Your task to perform on an android device: search for starred emails in the gmail app Image 0: 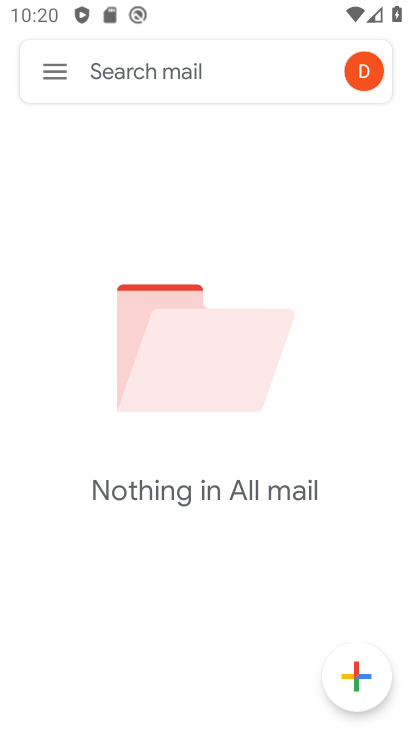
Step 0: press home button
Your task to perform on an android device: search for starred emails in the gmail app Image 1: 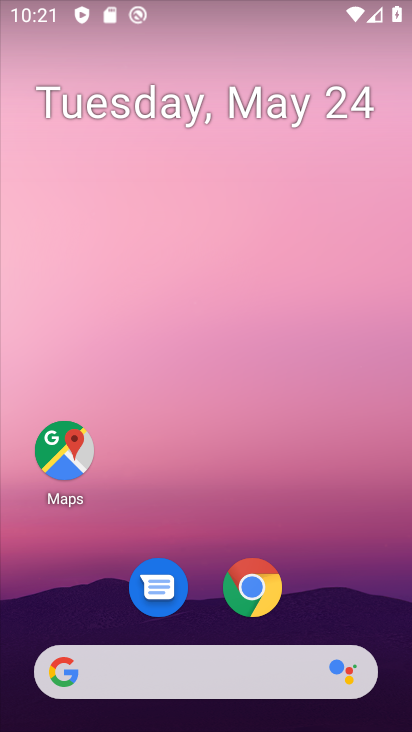
Step 1: drag from (389, 597) to (315, 112)
Your task to perform on an android device: search for starred emails in the gmail app Image 2: 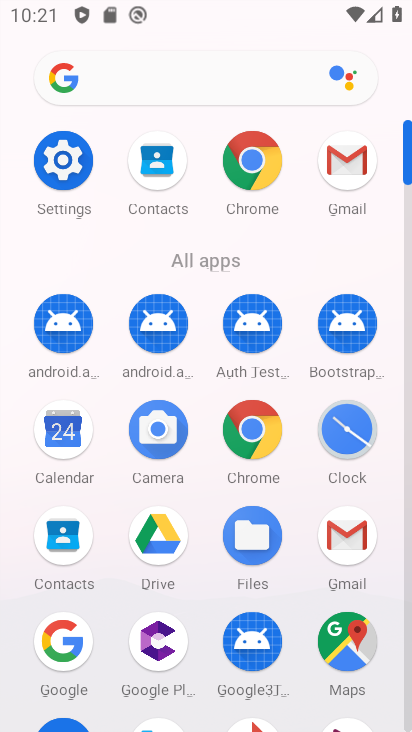
Step 2: click (353, 536)
Your task to perform on an android device: search for starred emails in the gmail app Image 3: 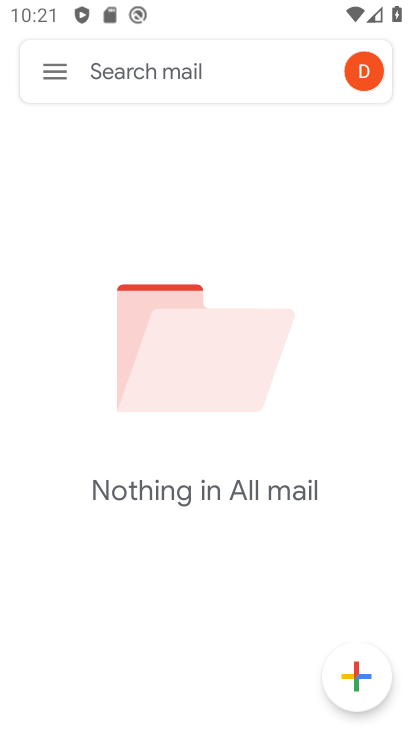
Step 3: click (29, 73)
Your task to perform on an android device: search for starred emails in the gmail app Image 4: 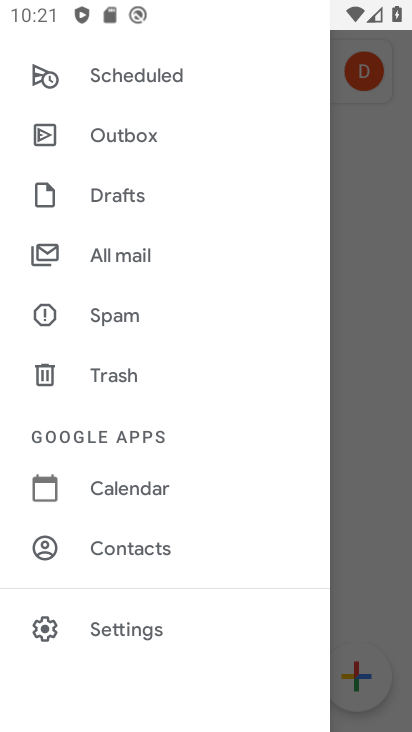
Step 4: drag from (139, 85) to (121, 582)
Your task to perform on an android device: search for starred emails in the gmail app Image 5: 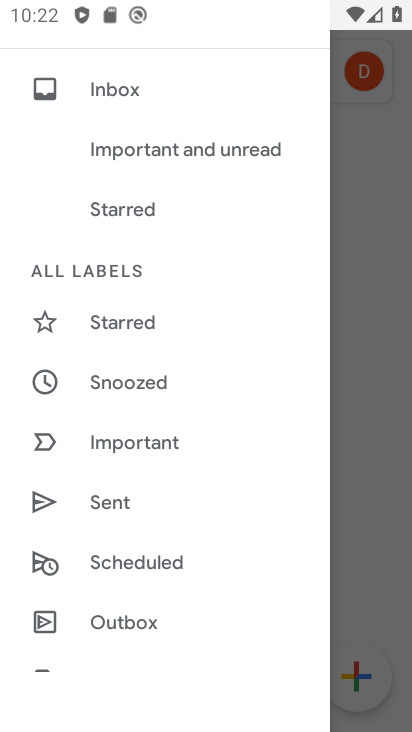
Step 5: click (129, 213)
Your task to perform on an android device: search for starred emails in the gmail app Image 6: 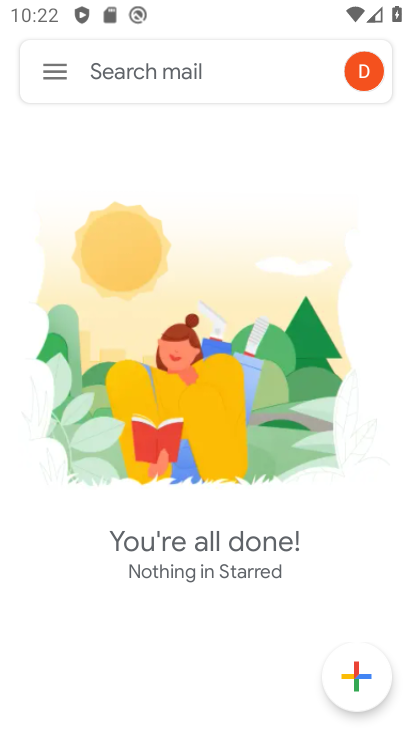
Step 6: task complete